Your task to perform on an android device: Go to Amazon Image 0: 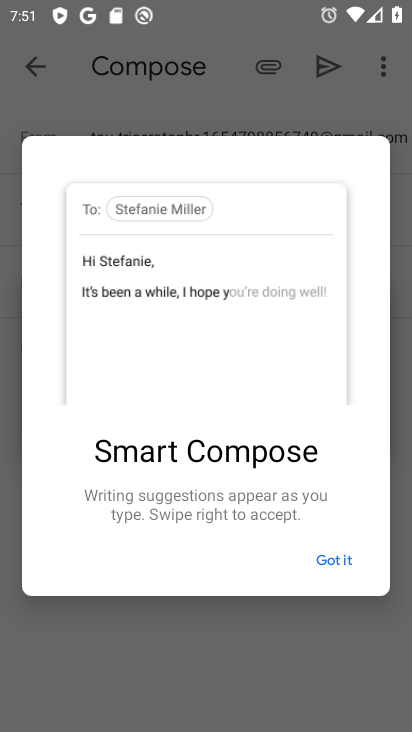
Step 0: press home button
Your task to perform on an android device: Go to Amazon Image 1: 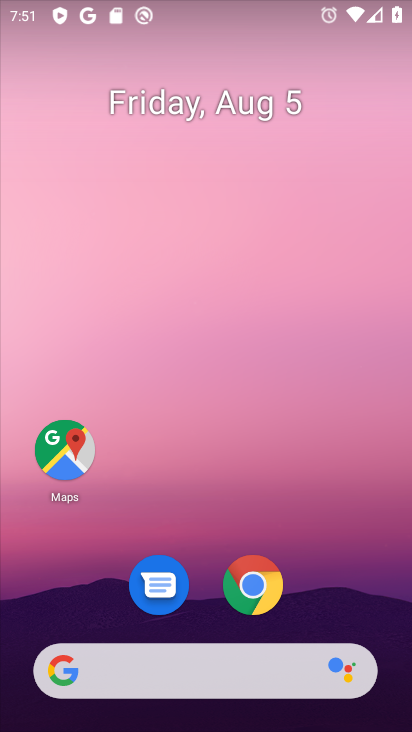
Step 1: click (260, 577)
Your task to perform on an android device: Go to Amazon Image 2: 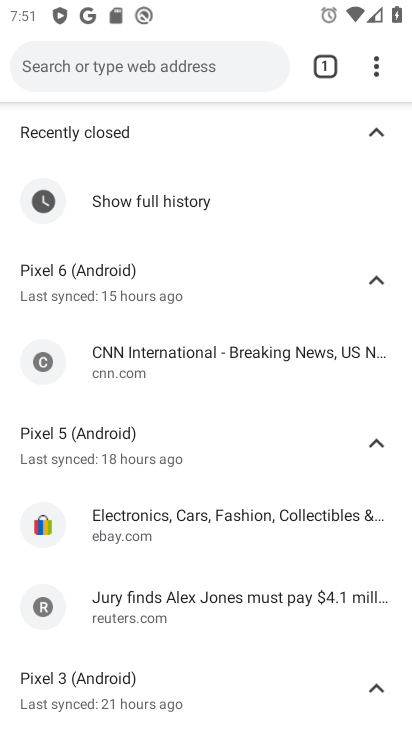
Step 2: press back button
Your task to perform on an android device: Go to Amazon Image 3: 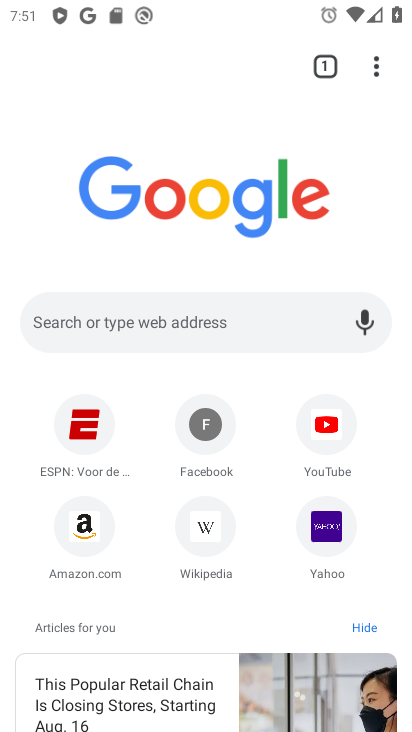
Step 3: click (88, 527)
Your task to perform on an android device: Go to Amazon Image 4: 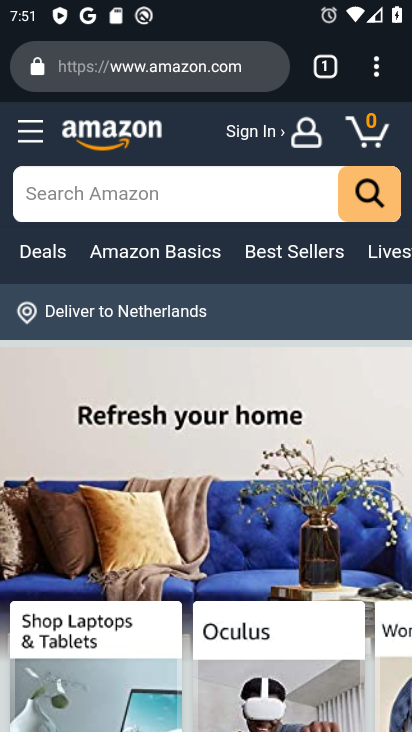
Step 4: task complete